Your task to perform on an android device: Open the web browser Image 0: 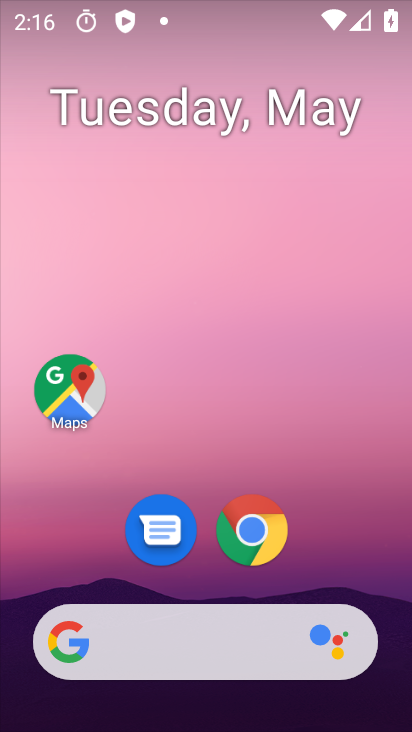
Step 0: click (269, 629)
Your task to perform on an android device: Open the web browser Image 1: 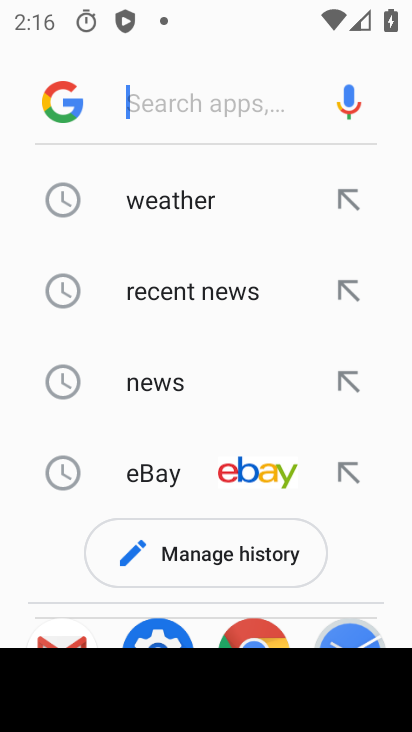
Step 1: task complete